Your task to perform on an android device: turn on location history Image 0: 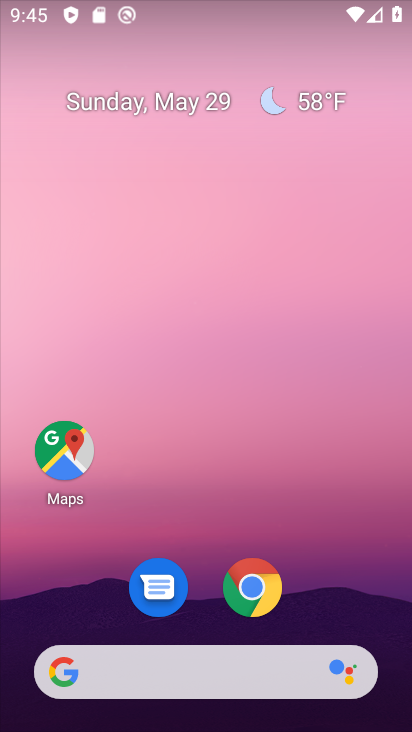
Step 0: drag from (355, 613) to (271, 119)
Your task to perform on an android device: turn on location history Image 1: 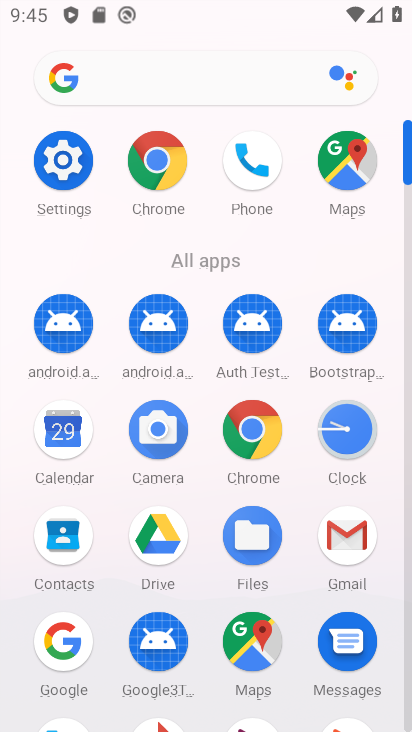
Step 1: click (354, 167)
Your task to perform on an android device: turn on location history Image 2: 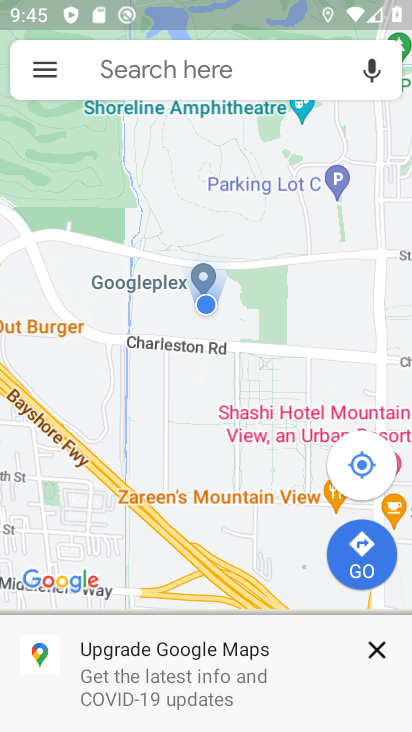
Step 2: click (52, 83)
Your task to perform on an android device: turn on location history Image 3: 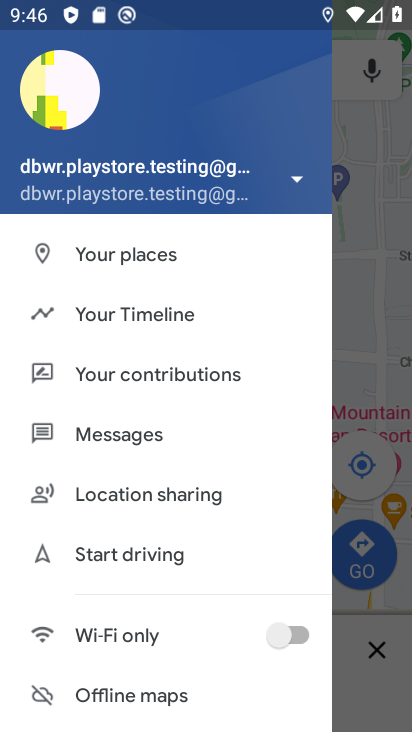
Step 3: click (147, 322)
Your task to perform on an android device: turn on location history Image 4: 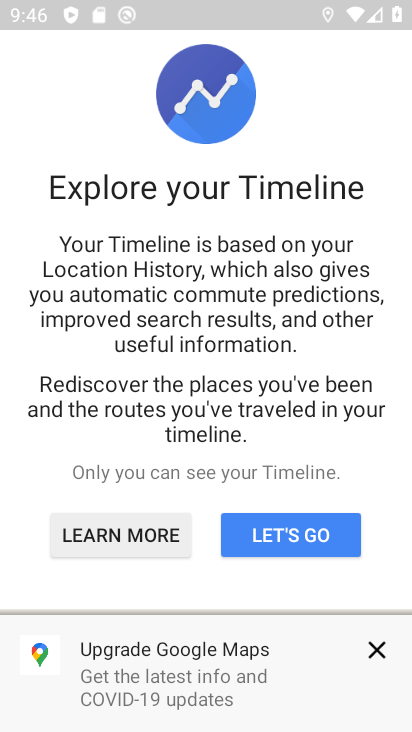
Step 4: click (375, 648)
Your task to perform on an android device: turn on location history Image 5: 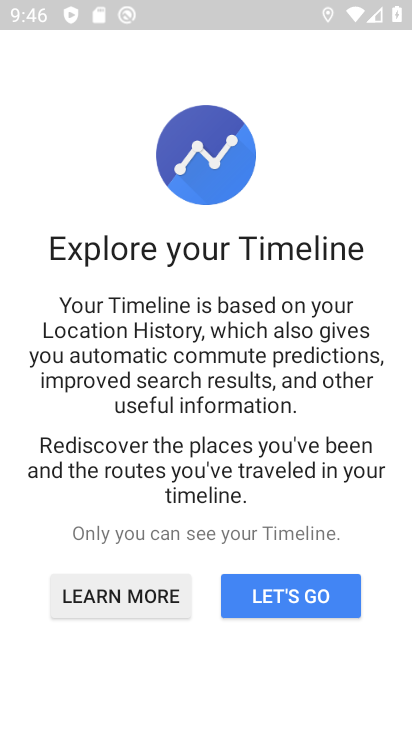
Step 5: click (315, 595)
Your task to perform on an android device: turn on location history Image 6: 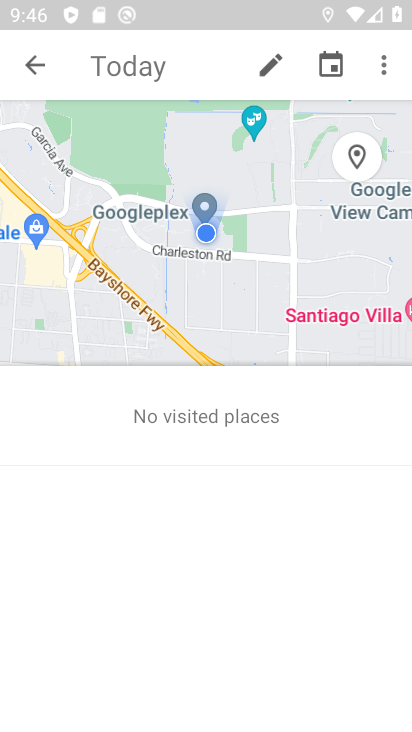
Step 6: click (385, 52)
Your task to perform on an android device: turn on location history Image 7: 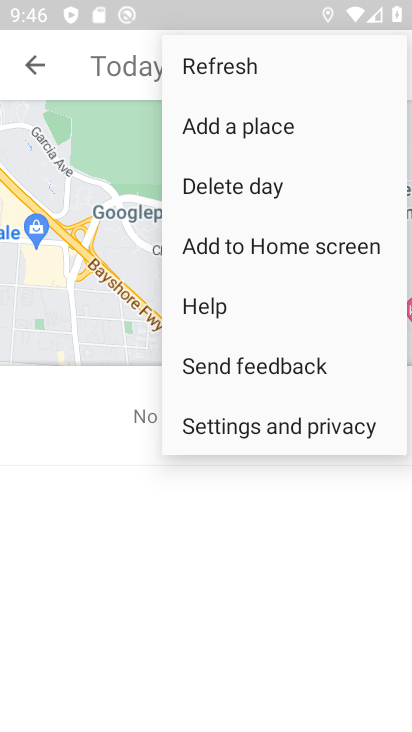
Step 7: click (282, 419)
Your task to perform on an android device: turn on location history Image 8: 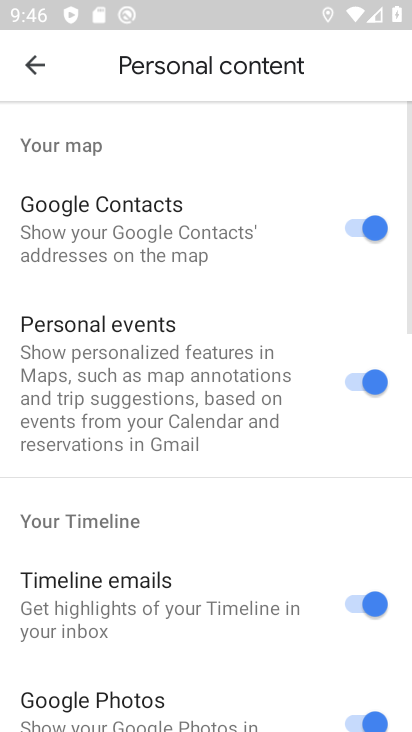
Step 8: drag from (198, 634) to (167, 119)
Your task to perform on an android device: turn on location history Image 9: 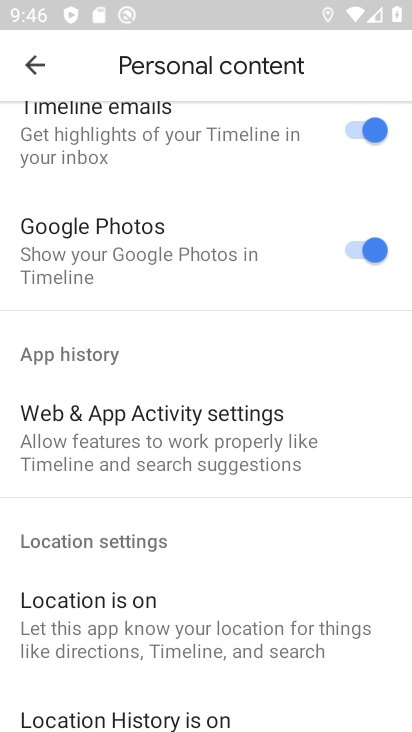
Step 9: drag from (188, 661) to (161, 168)
Your task to perform on an android device: turn on location history Image 10: 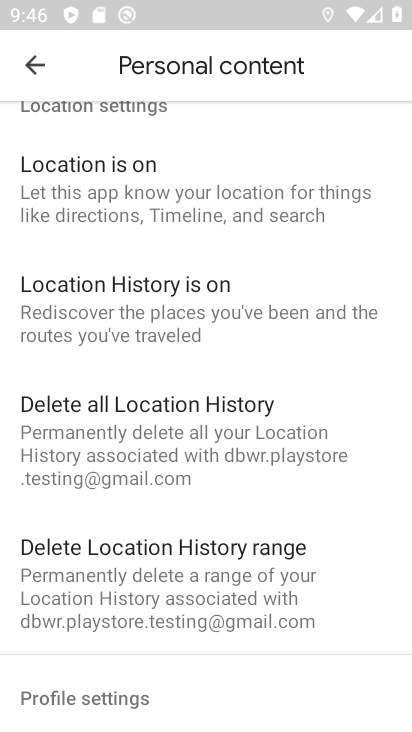
Step 10: click (192, 299)
Your task to perform on an android device: turn on location history Image 11: 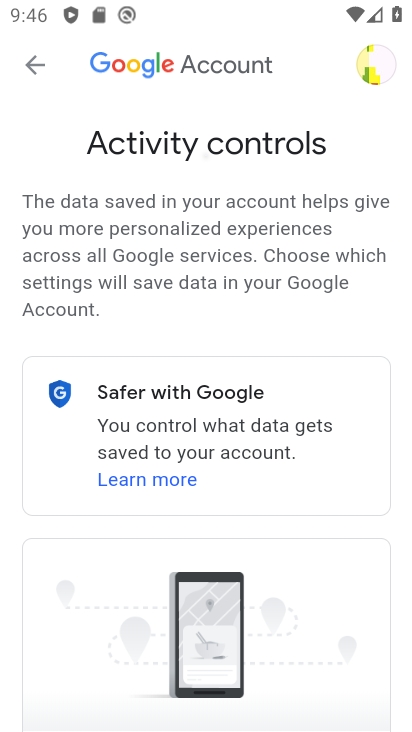
Step 11: drag from (297, 681) to (285, 136)
Your task to perform on an android device: turn on location history Image 12: 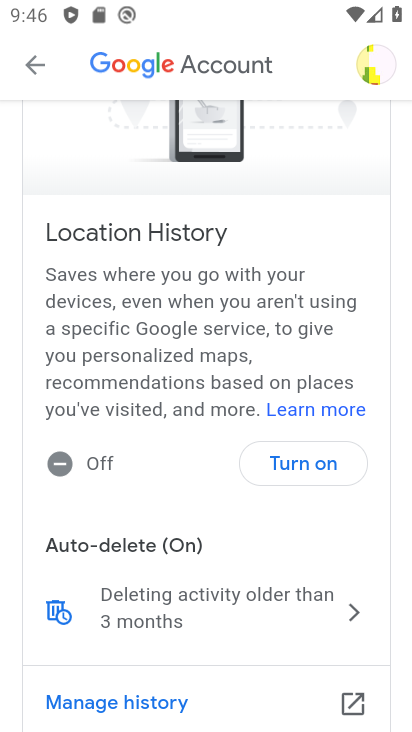
Step 12: click (323, 459)
Your task to perform on an android device: turn on location history Image 13: 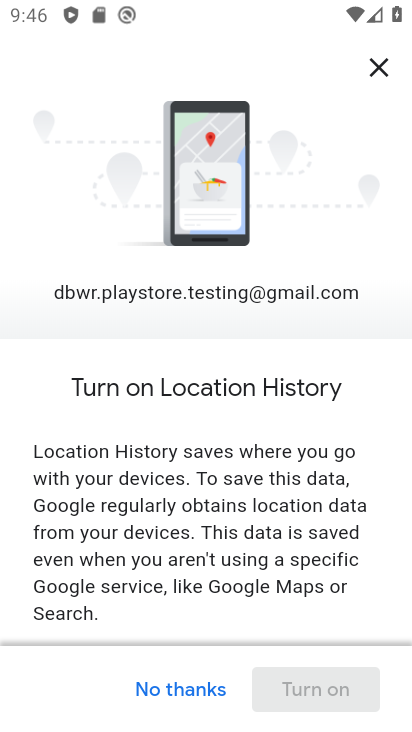
Step 13: drag from (288, 580) to (250, 96)
Your task to perform on an android device: turn on location history Image 14: 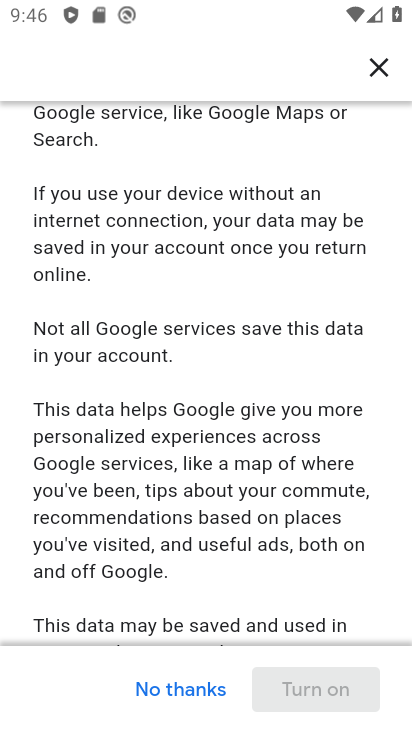
Step 14: drag from (256, 469) to (226, 16)
Your task to perform on an android device: turn on location history Image 15: 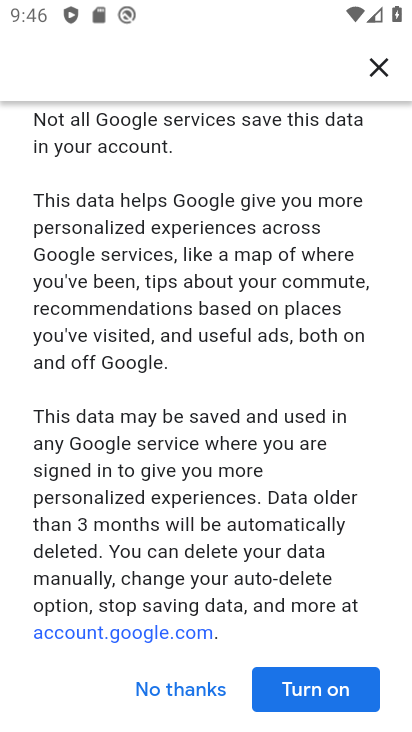
Step 15: click (319, 694)
Your task to perform on an android device: turn on location history Image 16: 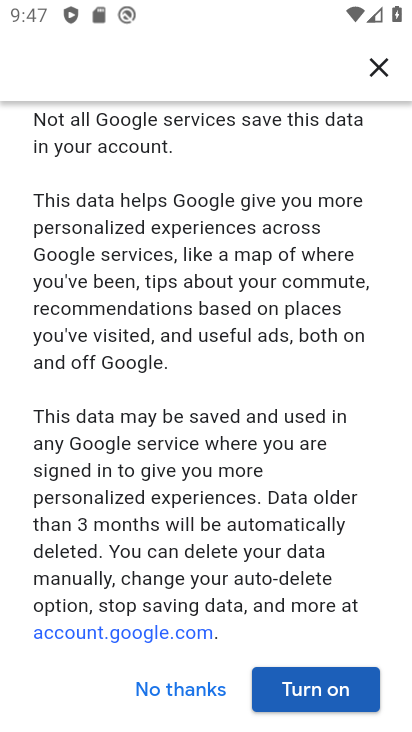
Step 16: click (318, 644)
Your task to perform on an android device: turn on location history Image 17: 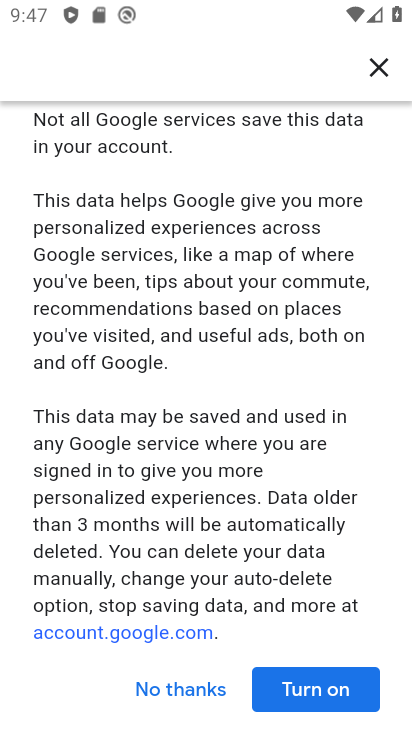
Step 17: click (326, 693)
Your task to perform on an android device: turn on location history Image 18: 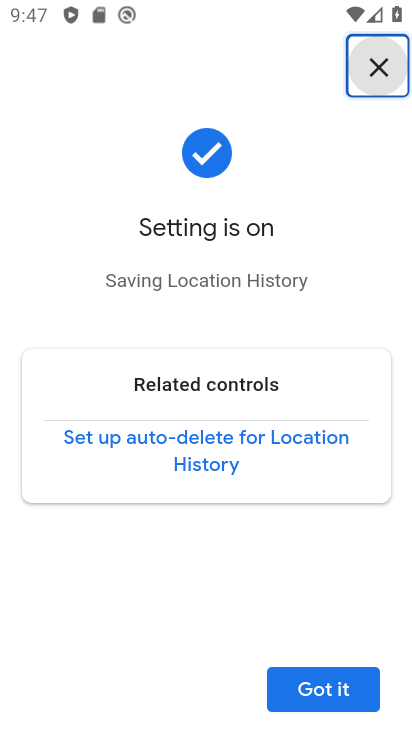
Step 18: click (326, 693)
Your task to perform on an android device: turn on location history Image 19: 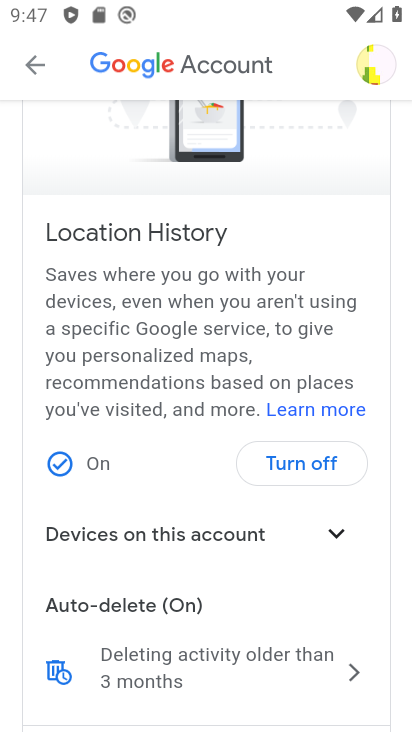
Step 19: task complete